Your task to perform on an android device: Open settings on Google Maps Image 0: 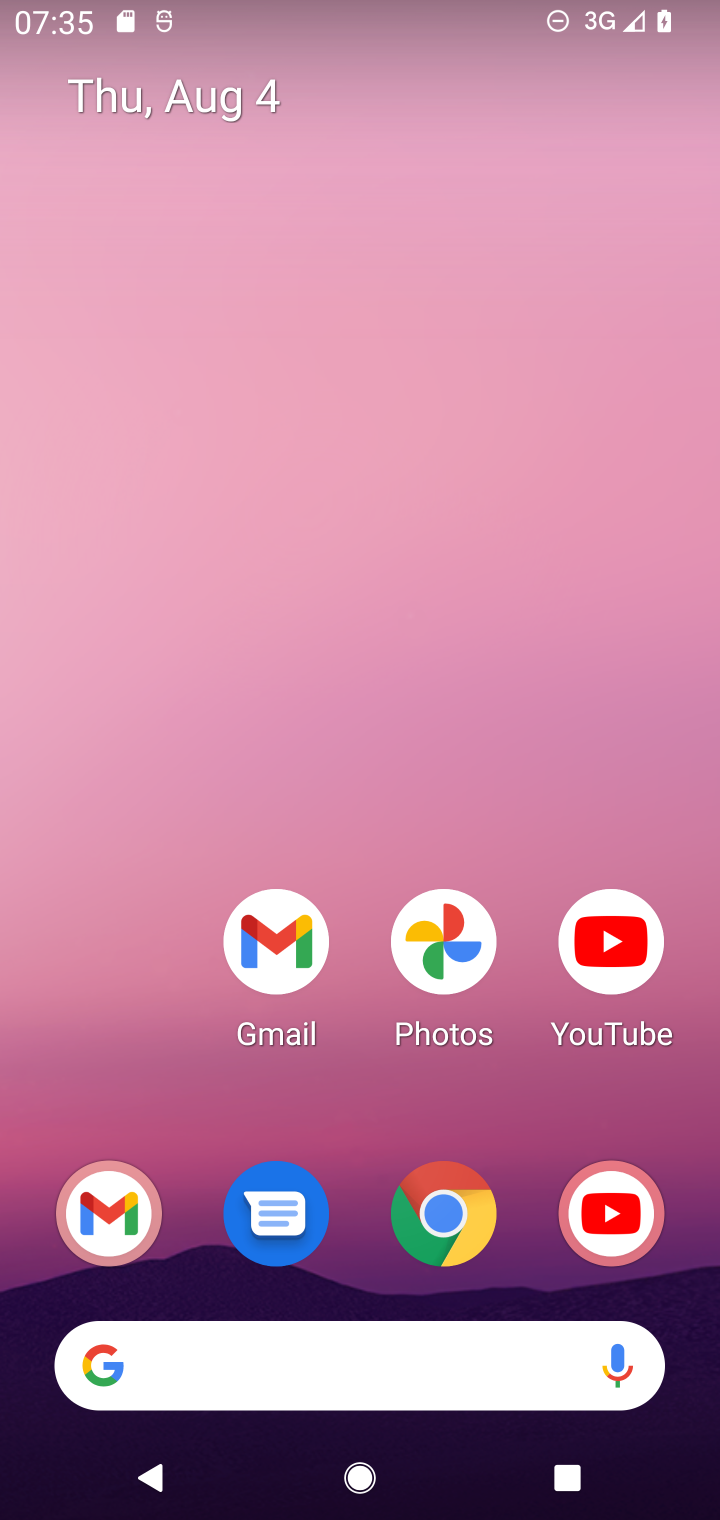
Step 0: drag from (119, 1034) to (153, 492)
Your task to perform on an android device: Open settings on Google Maps Image 1: 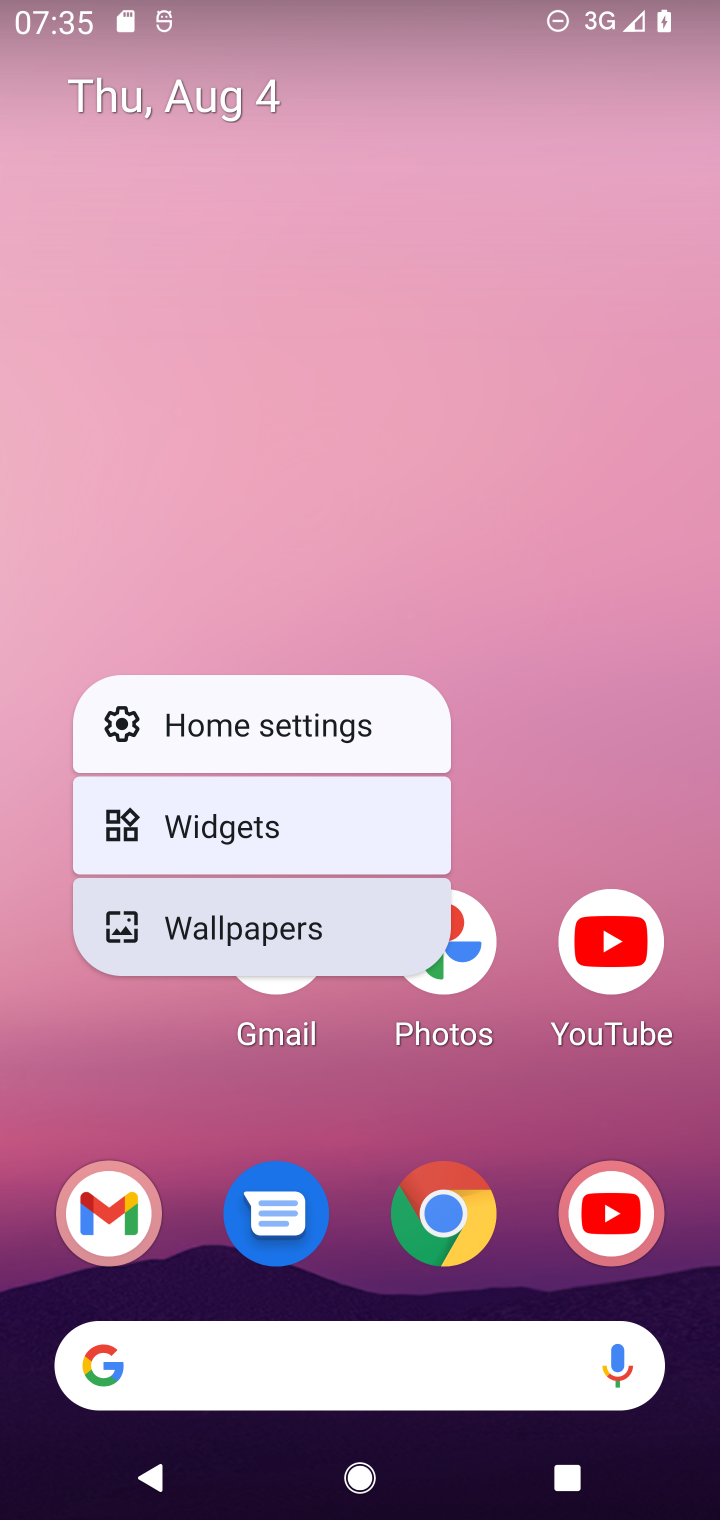
Step 1: click (118, 1079)
Your task to perform on an android device: Open settings on Google Maps Image 2: 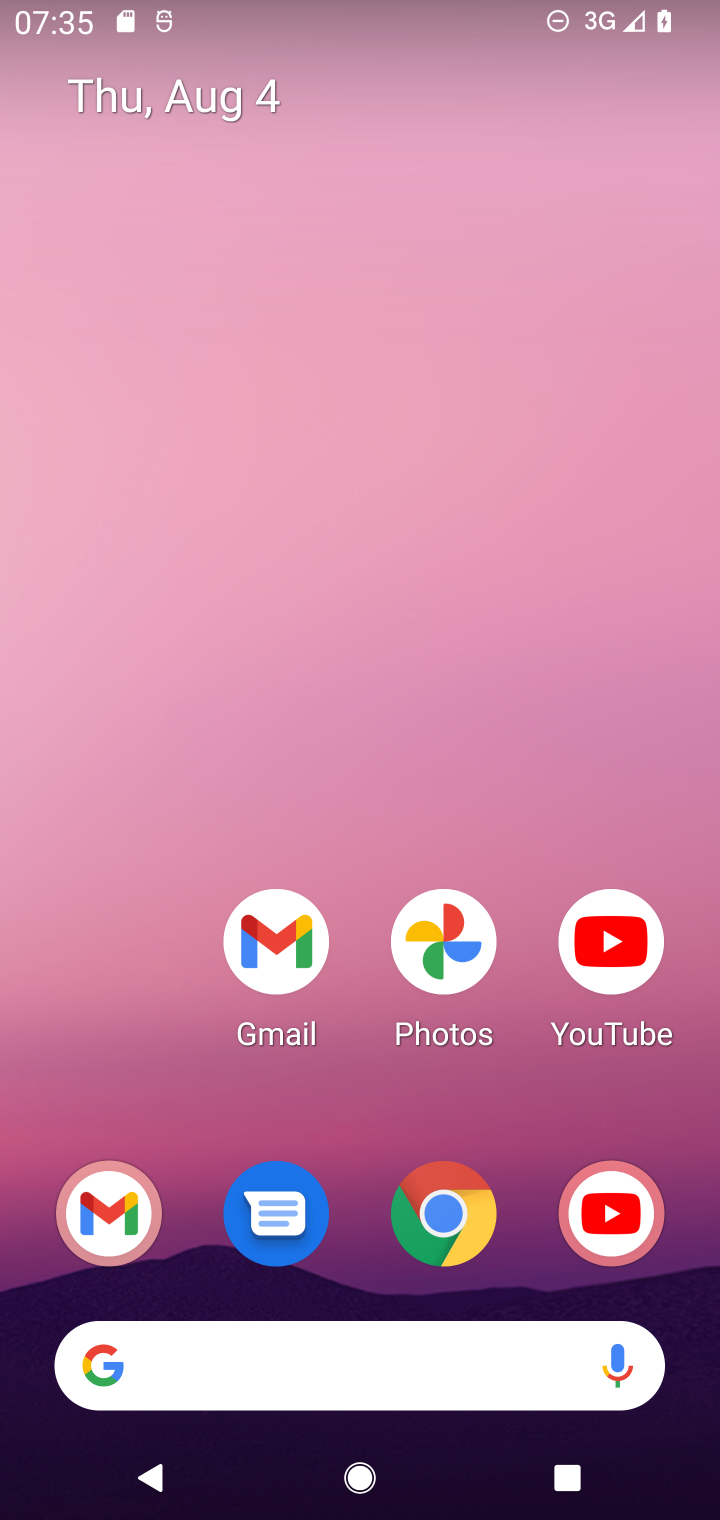
Step 2: drag from (474, 498) to (470, 34)
Your task to perform on an android device: Open settings on Google Maps Image 3: 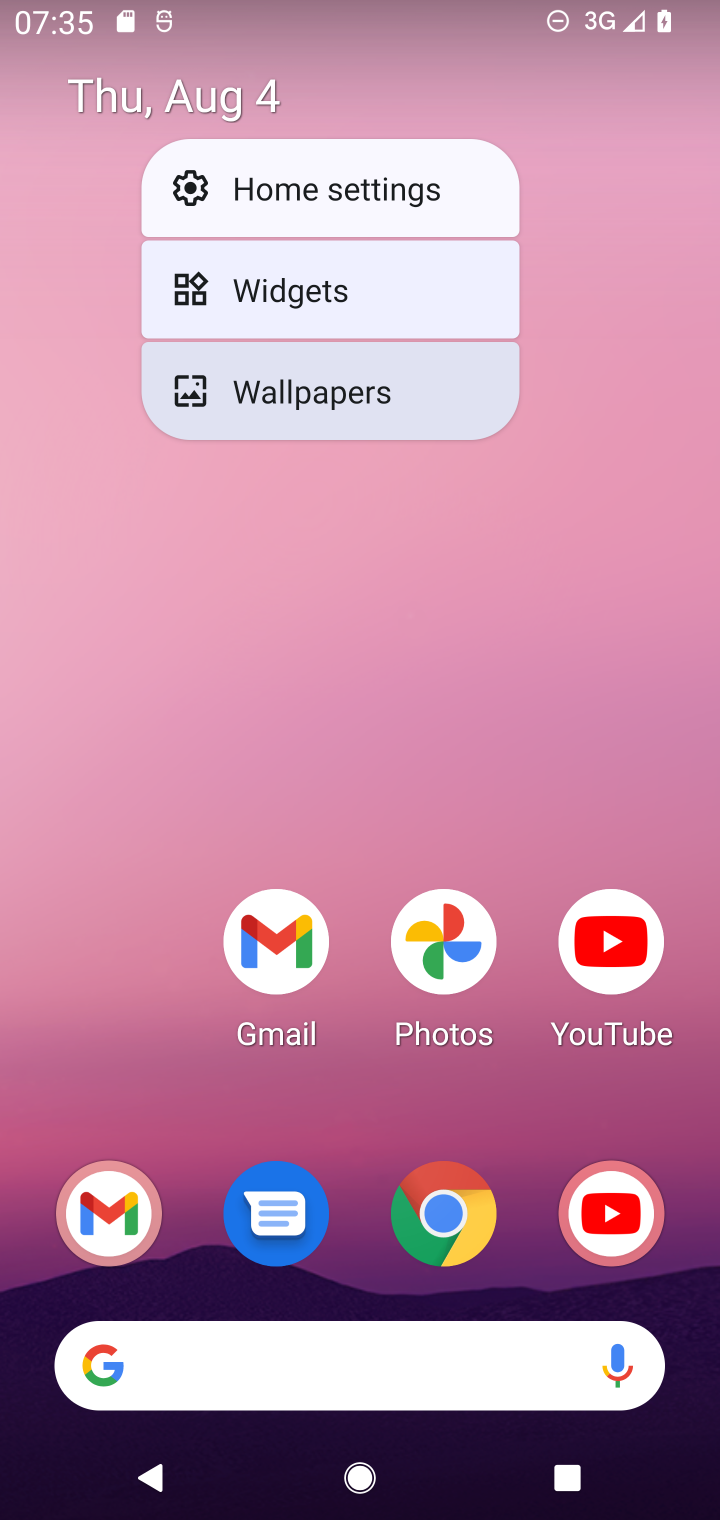
Step 3: drag from (102, 391) to (135, 772)
Your task to perform on an android device: Open settings on Google Maps Image 4: 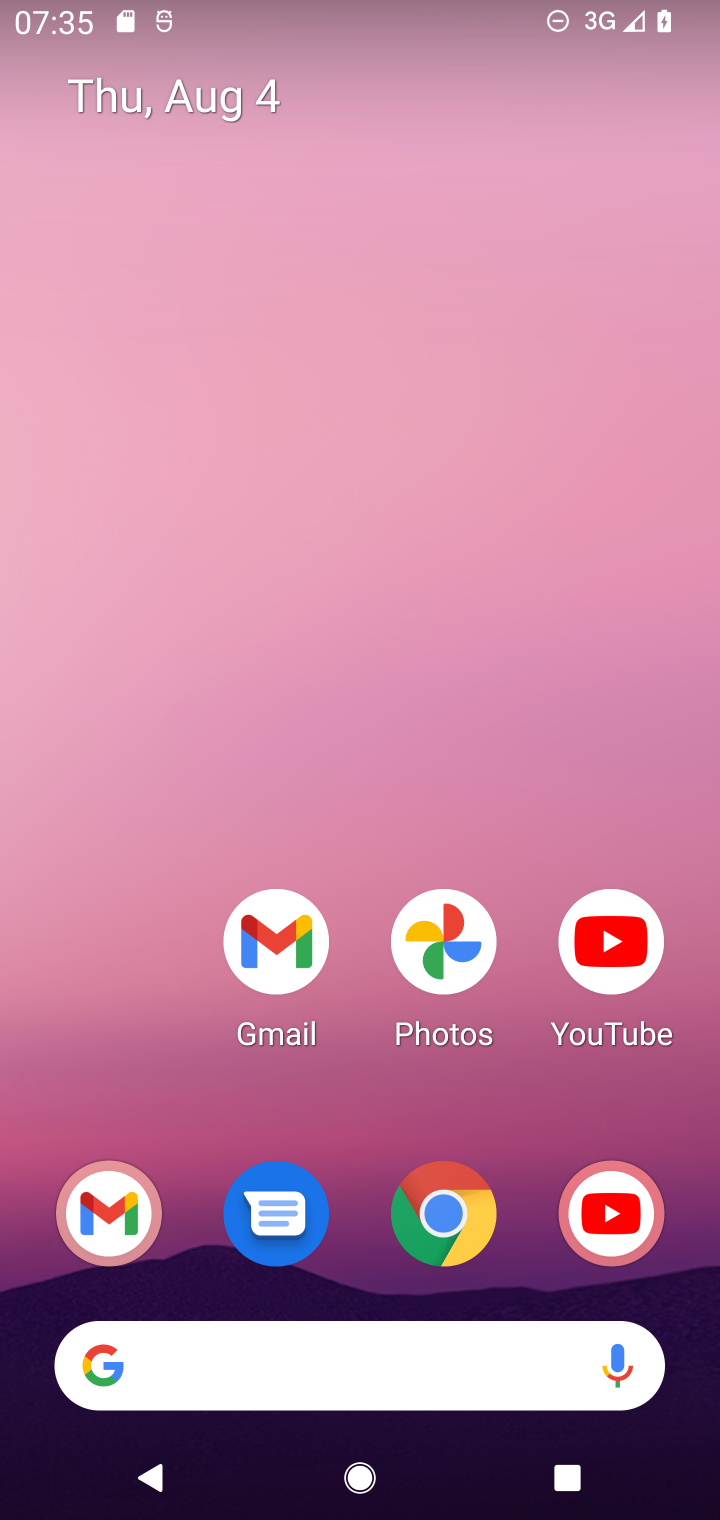
Step 4: drag from (157, 1097) to (148, 119)
Your task to perform on an android device: Open settings on Google Maps Image 5: 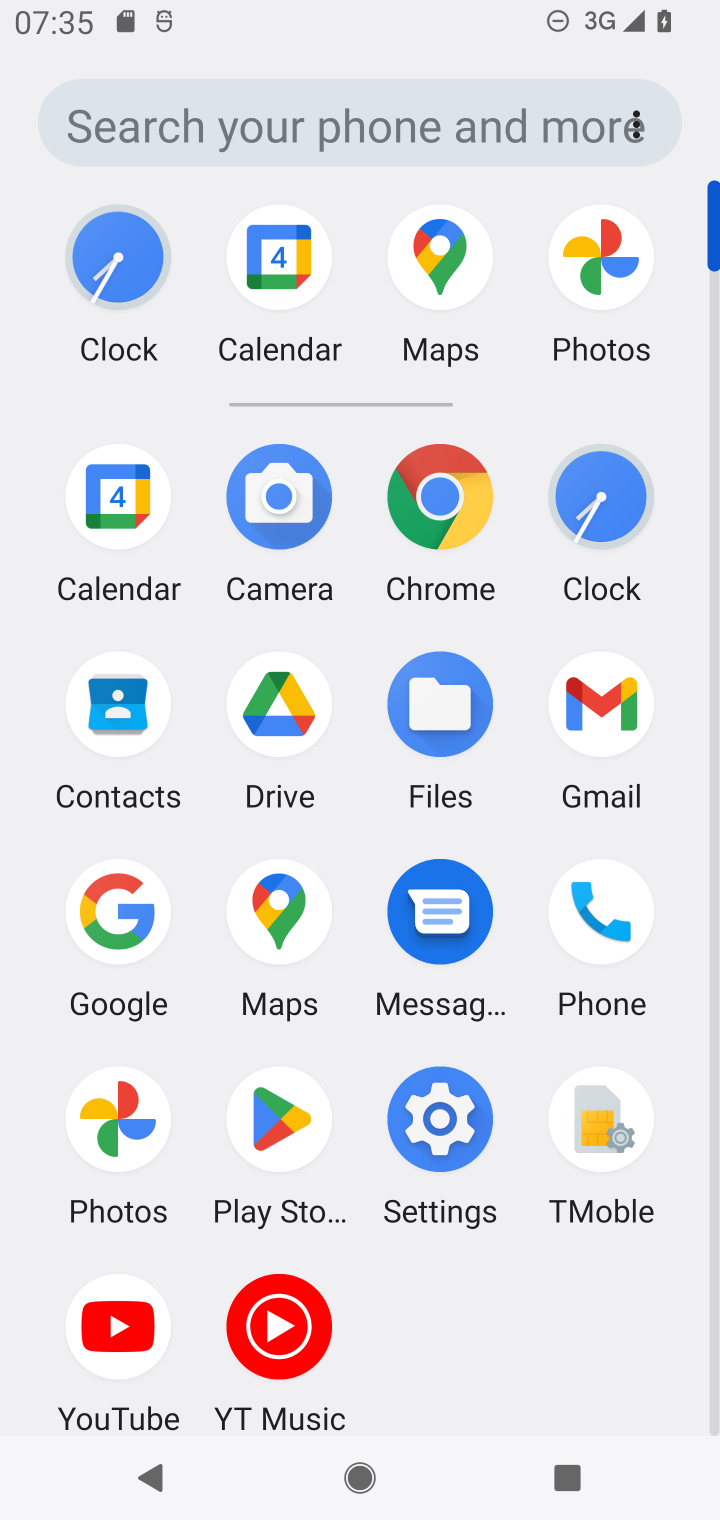
Step 5: click (453, 281)
Your task to perform on an android device: Open settings on Google Maps Image 6: 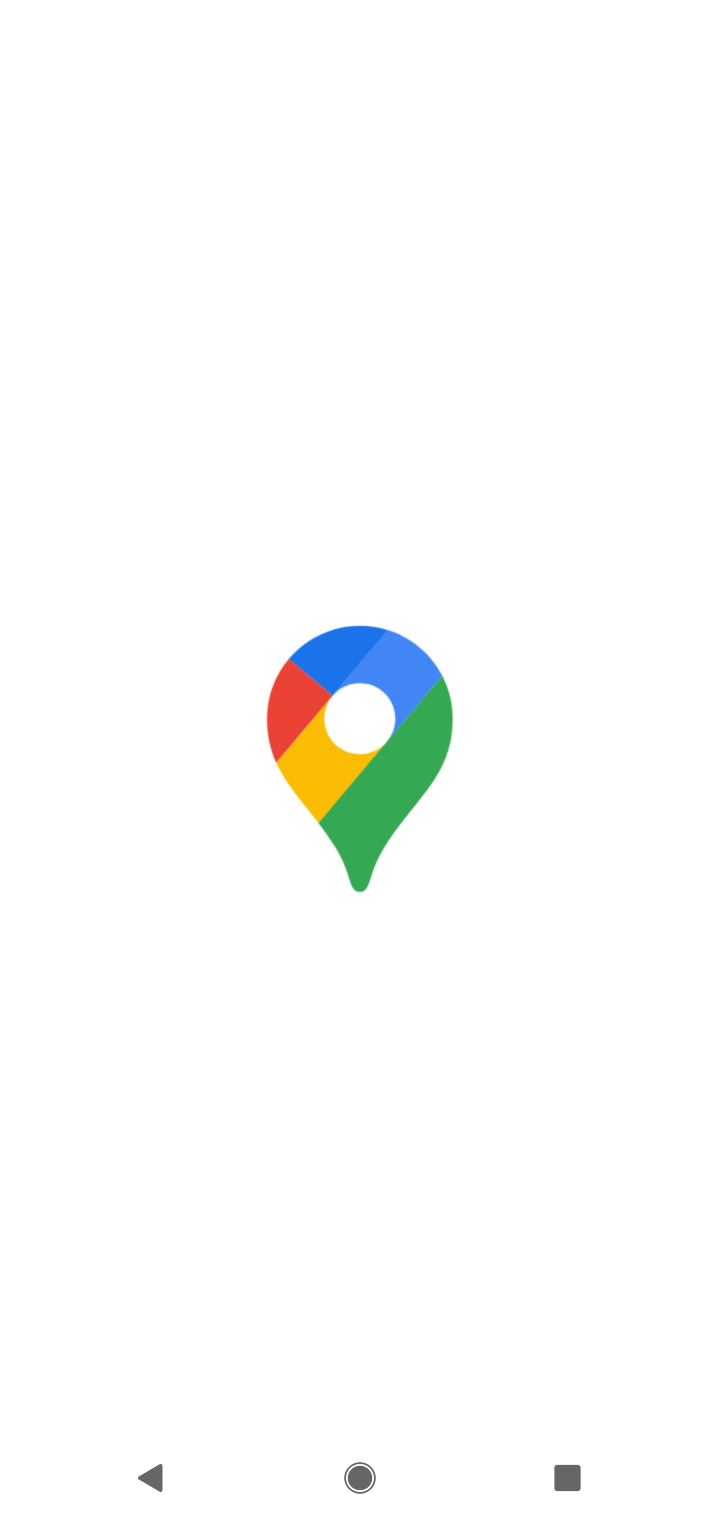
Step 6: task complete